Your task to perform on an android device: What's the weather? Image 0: 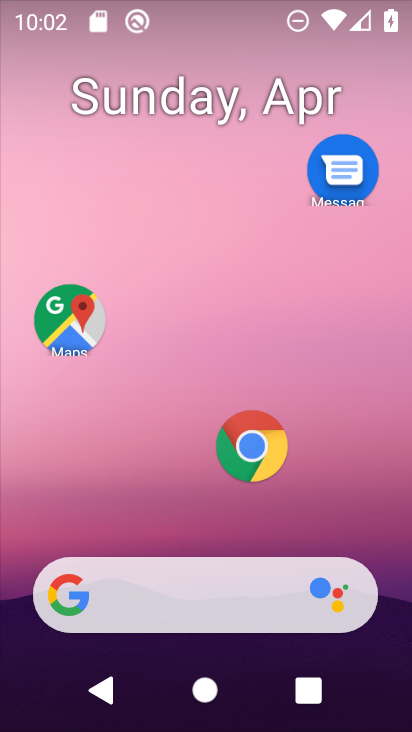
Step 0: drag from (203, 522) to (214, 174)
Your task to perform on an android device: What's the weather? Image 1: 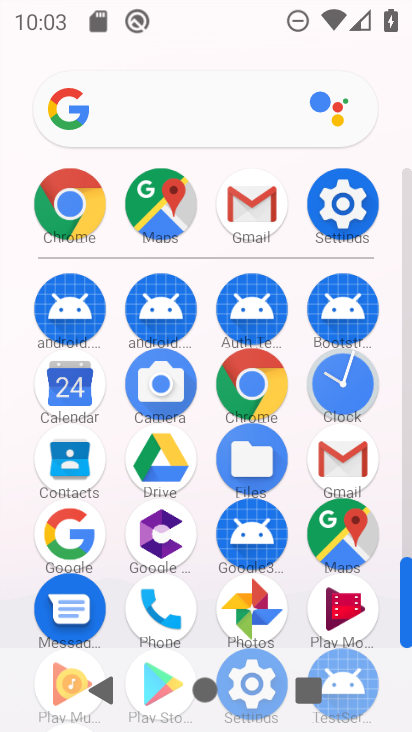
Step 1: click (76, 525)
Your task to perform on an android device: What's the weather? Image 2: 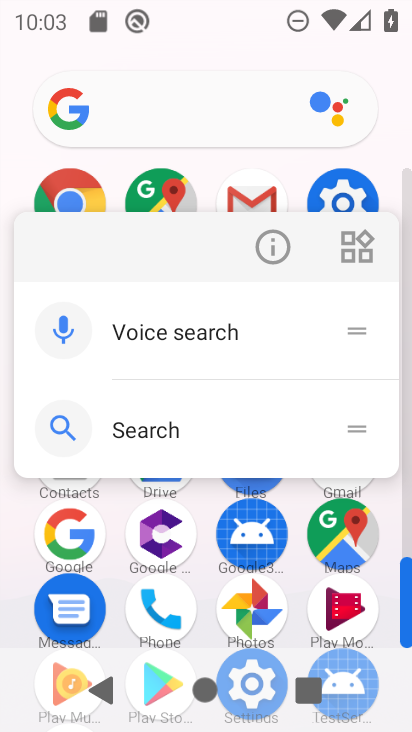
Step 2: click (278, 239)
Your task to perform on an android device: What's the weather? Image 3: 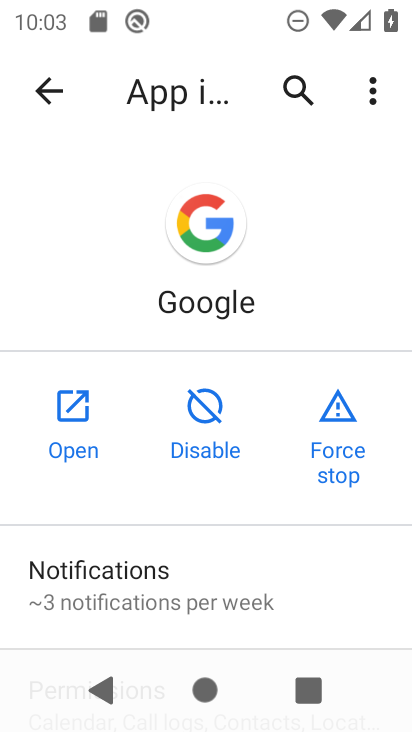
Step 3: click (71, 427)
Your task to perform on an android device: What's the weather? Image 4: 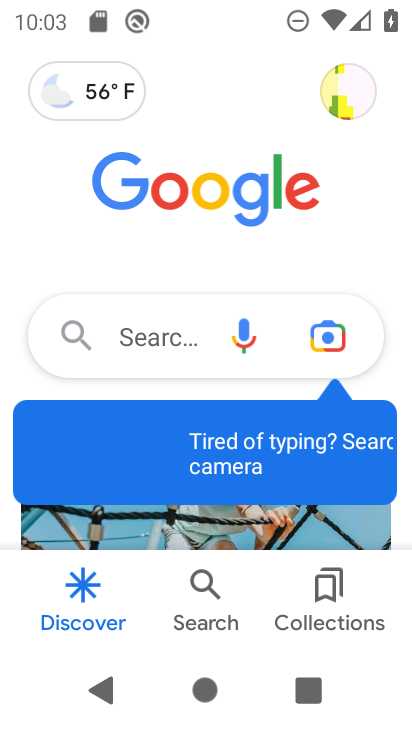
Step 4: click (141, 335)
Your task to perform on an android device: What's the weather? Image 5: 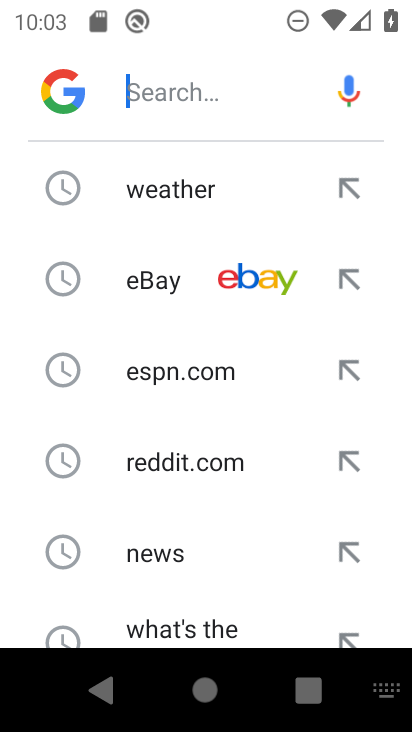
Step 5: click (183, 209)
Your task to perform on an android device: What's the weather? Image 6: 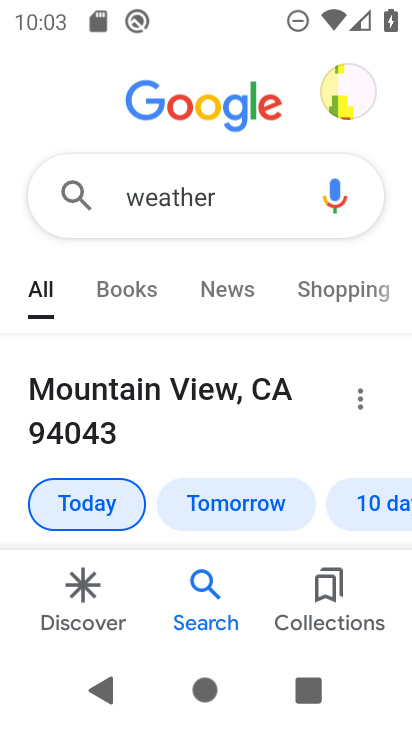
Step 6: task complete